Your task to perform on an android device: turn off data saver in the chrome app Image 0: 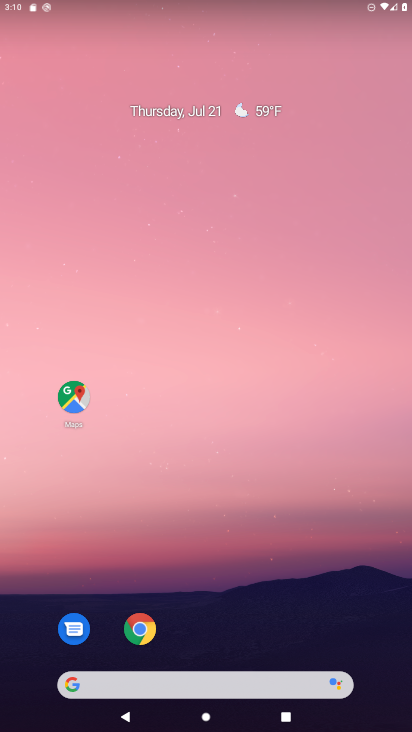
Step 0: drag from (237, 718) to (209, 241)
Your task to perform on an android device: turn off data saver in the chrome app Image 1: 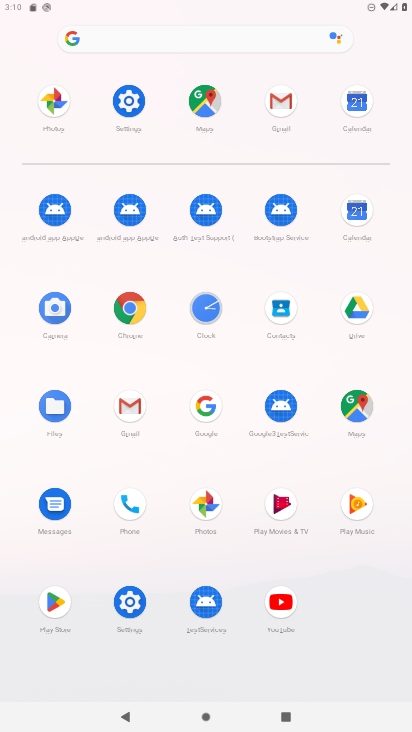
Step 1: click (129, 312)
Your task to perform on an android device: turn off data saver in the chrome app Image 2: 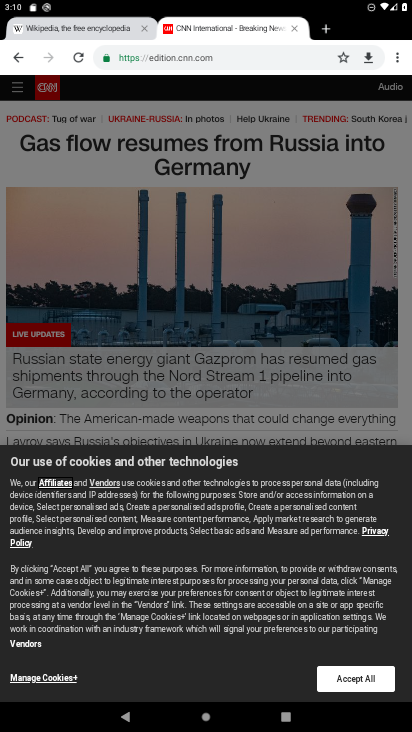
Step 2: click (396, 57)
Your task to perform on an android device: turn off data saver in the chrome app Image 3: 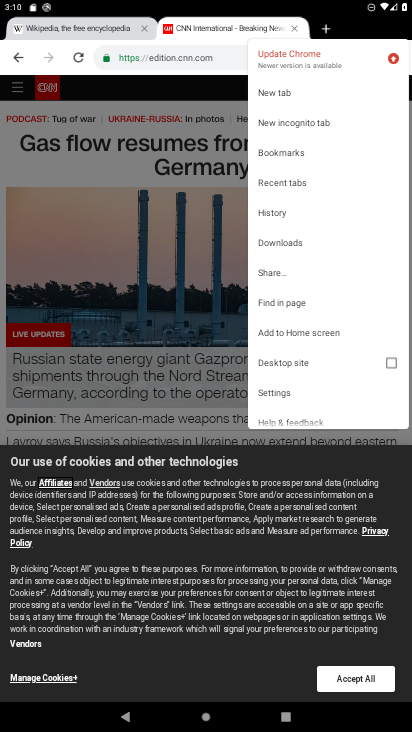
Step 3: click (277, 393)
Your task to perform on an android device: turn off data saver in the chrome app Image 4: 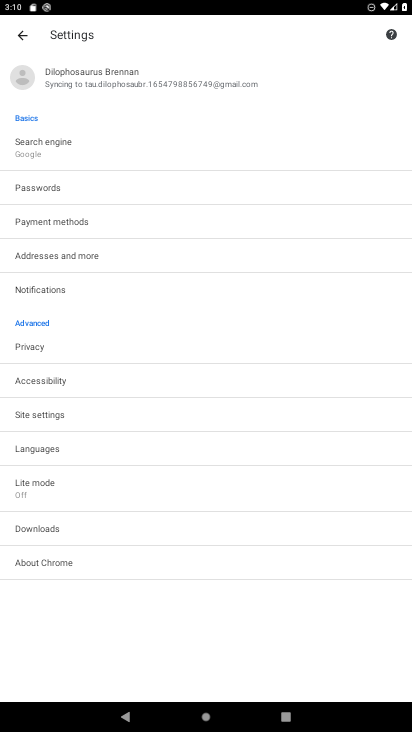
Step 4: click (43, 483)
Your task to perform on an android device: turn off data saver in the chrome app Image 5: 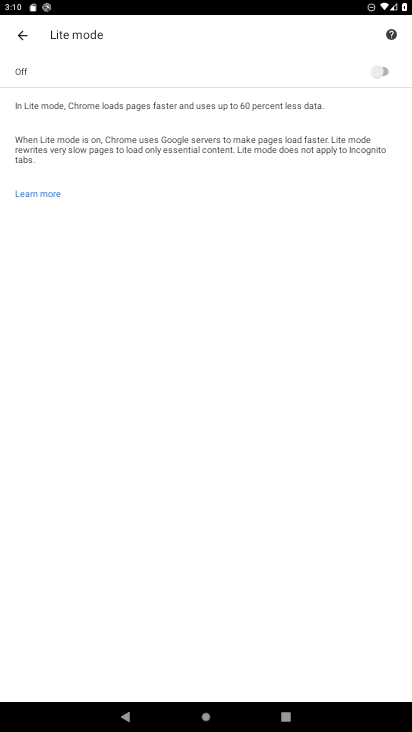
Step 5: task complete